Your task to perform on an android device: toggle priority inbox in the gmail app Image 0: 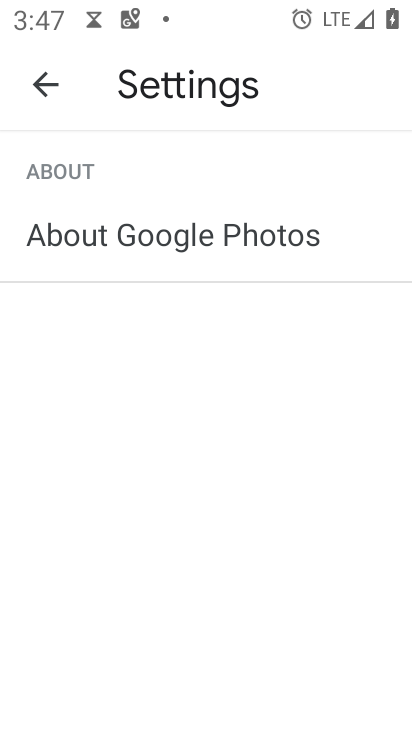
Step 0: press home button
Your task to perform on an android device: toggle priority inbox in the gmail app Image 1: 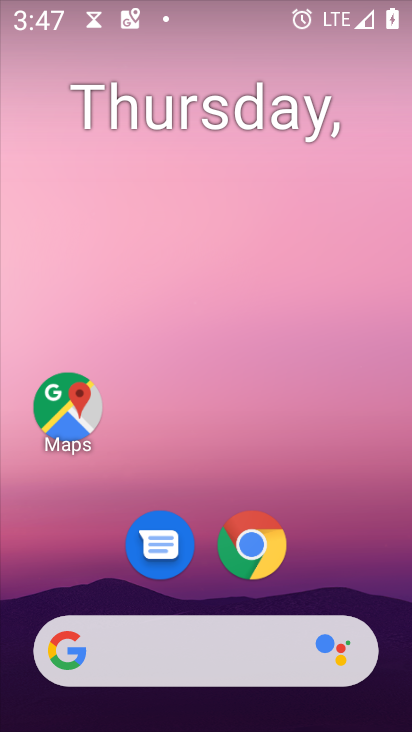
Step 1: drag from (341, 500) to (382, 48)
Your task to perform on an android device: toggle priority inbox in the gmail app Image 2: 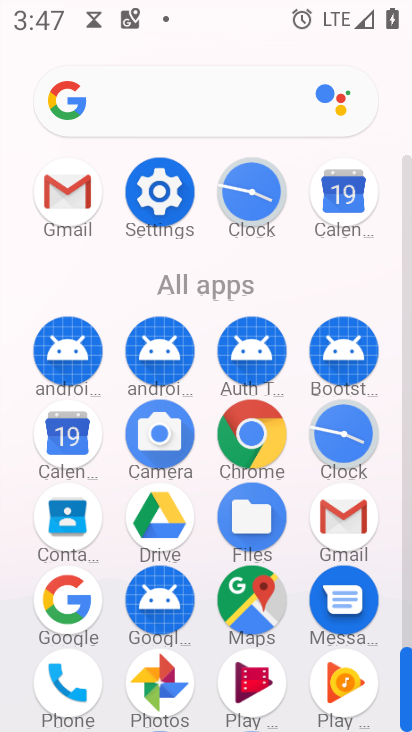
Step 2: click (63, 191)
Your task to perform on an android device: toggle priority inbox in the gmail app Image 3: 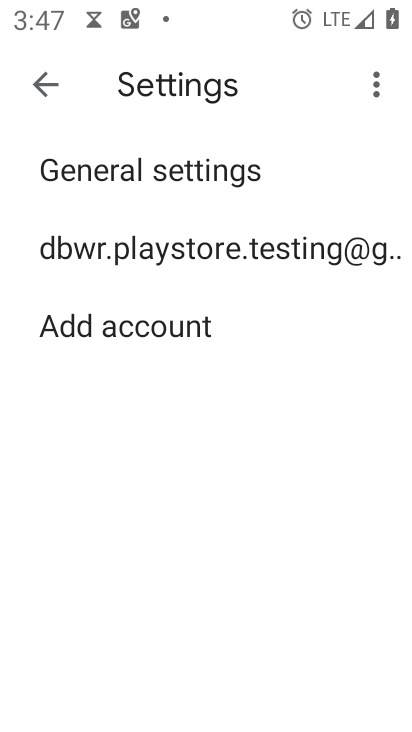
Step 3: click (66, 233)
Your task to perform on an android device: toggle priority inbox in the gmail app Image 4: 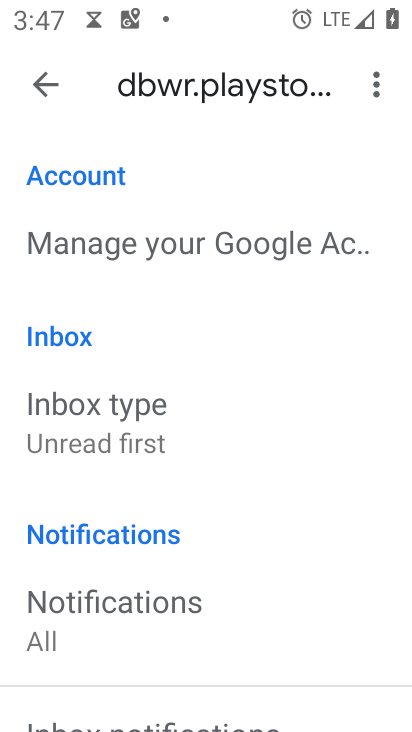
Step 4: click (129, 456)
Your task to perform on an android device: toggle priority inbox in the gmail app Image 5: 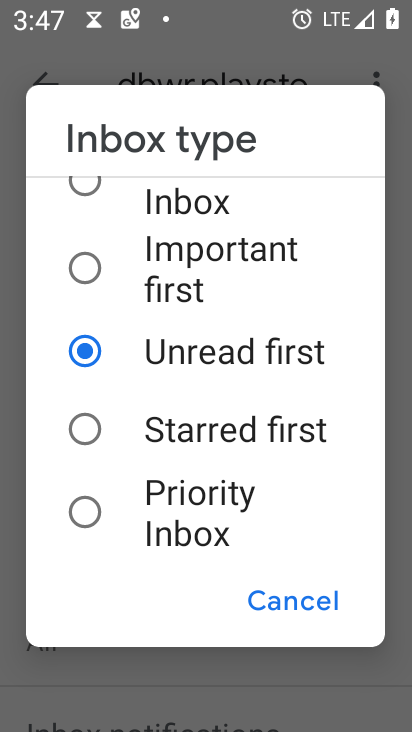
Step 5: click (84, 508)
Your task to perform on an android device: toggle priority inbox in the gmail app Image 6: 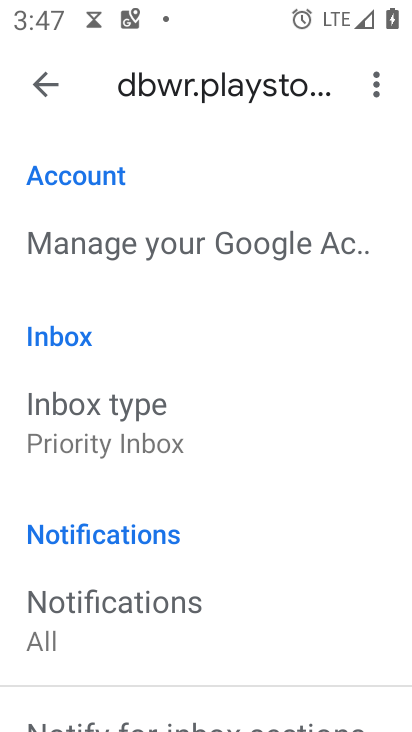
Step 6: task complete